Your task to perform on an android device: Open display settings Image 0: 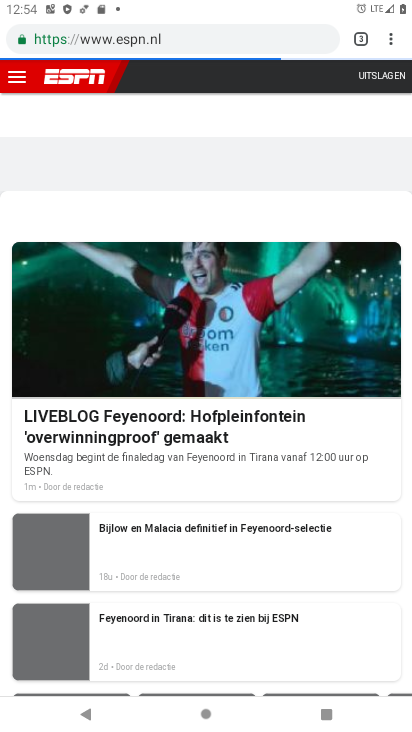
Step 0: press home button
Your task to perform on an android device: Open display settings Image 1: 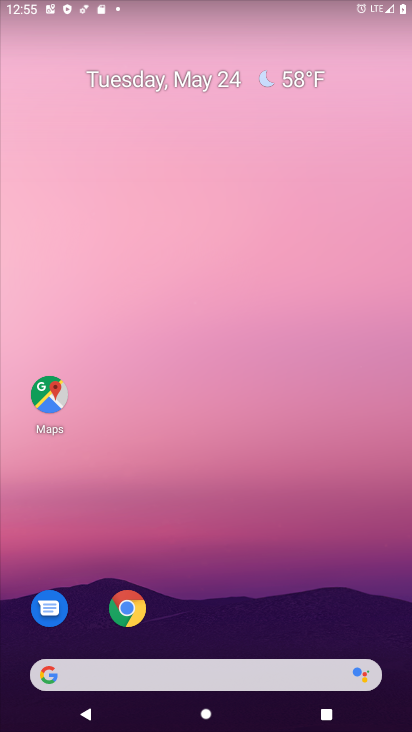
Step 1: drag from (233, 672) to (210, 206)
Your task to perform on an android device: Open display settings Image 2: 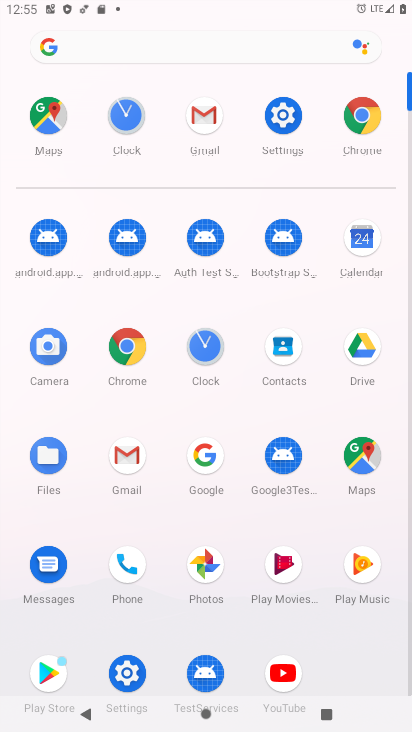
Step 2: click (283, 137)
Your task to perform on an android device: Open display settings Image 3: 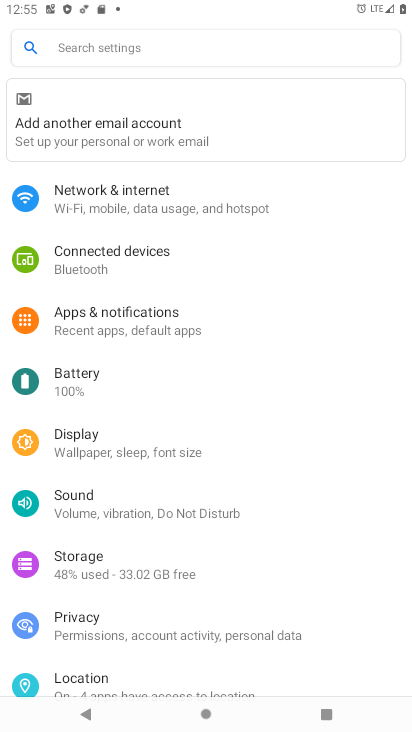
Step 3: click (99, 440)
Your task to perform on an android device: Open display settings Image 4: 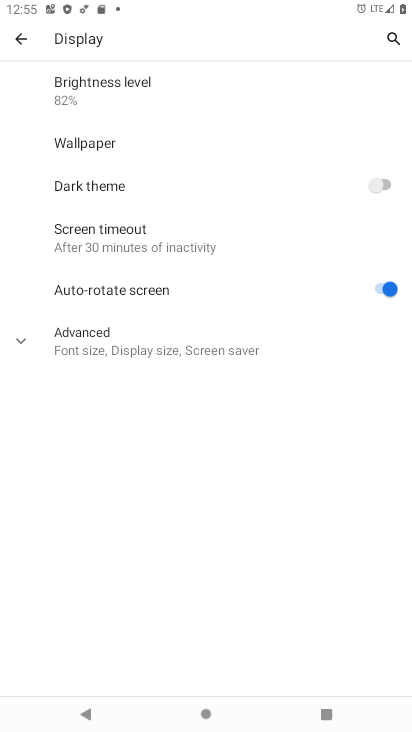
Step 4: task complete